Your task to perform on an android device: Open notification settings Image 0: 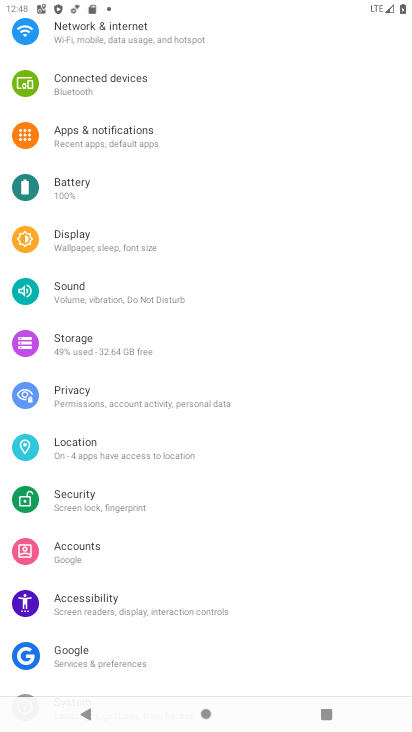
Step 0: click (148, 146)
Your task to perform on an android device: Open notification settings Image 1: 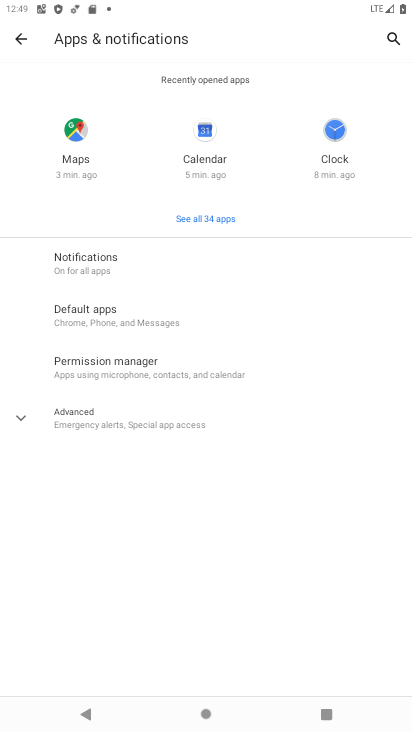
Step 1: click (222, 275)
Your task to perform on an android device: Open notification settings Image 2: 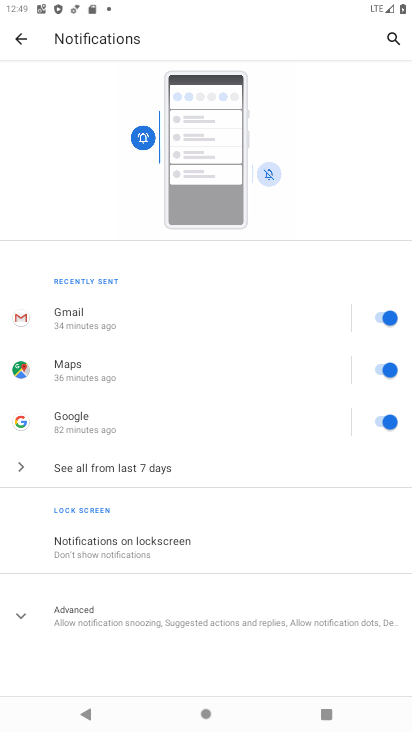
Step 2: task complete